Your task to perform on an android device: toggle location history Image 0: 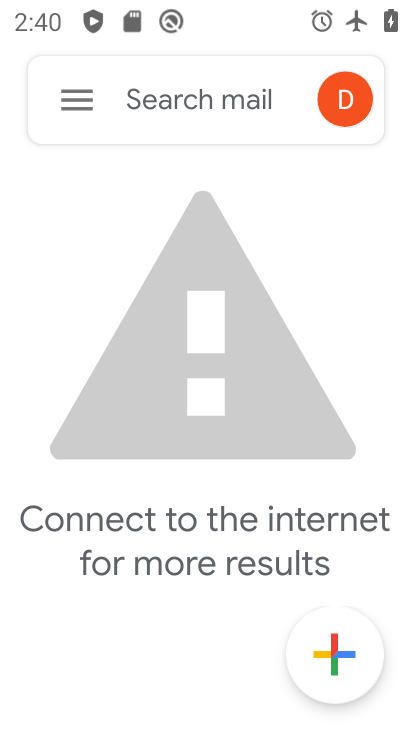
Step 0: press home button
Your task to perform on an android device: toggle location history Image 1: 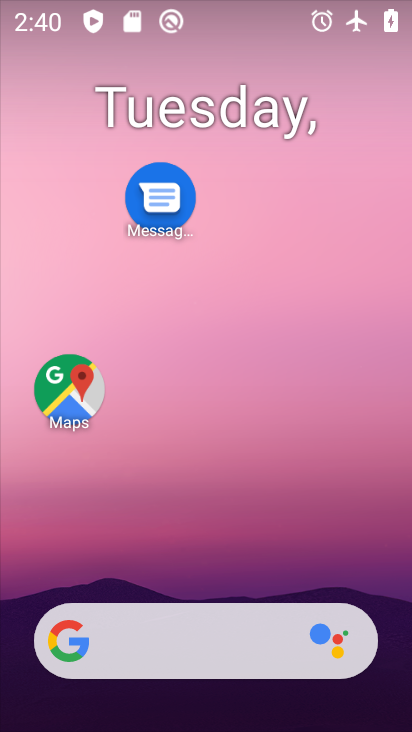
Step 1: drag from (224, 562) to (247, 141)
Your task to perform on an android device: toggle location history Image 2: 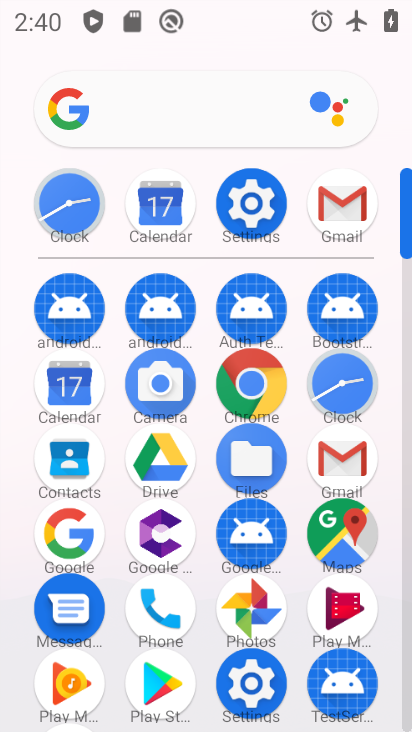
Step 2: click (259, 188)
Your task to perform on an android device: toggle location history Image 3: 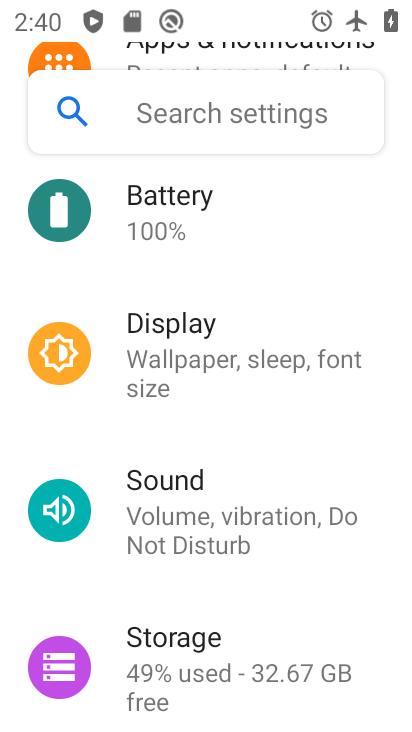
Step 3: drag from (242, 577) to (231, 236)
Your task to perform on an android device: toggle location history Image 4: 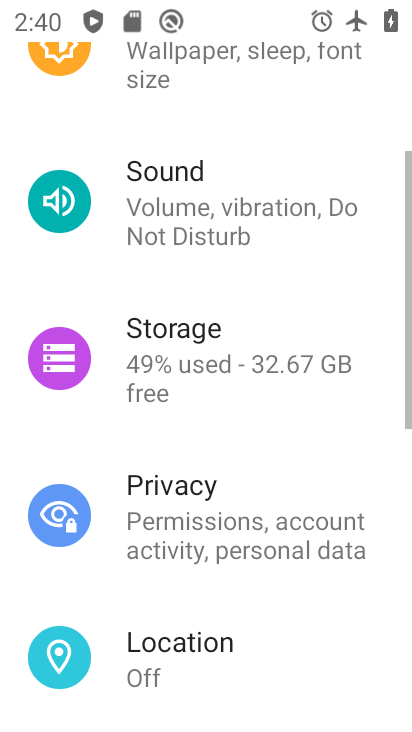
Step 4: click (136, 645)
Your task to perform on an android device: toggle location history Image 5: 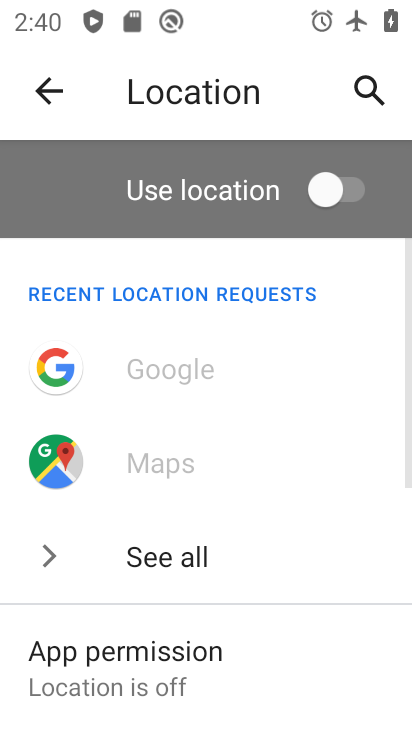
Step 5: drag from (255, 619) to (279, 256)
Your task to perform on an android device: toggle location history Image 6: 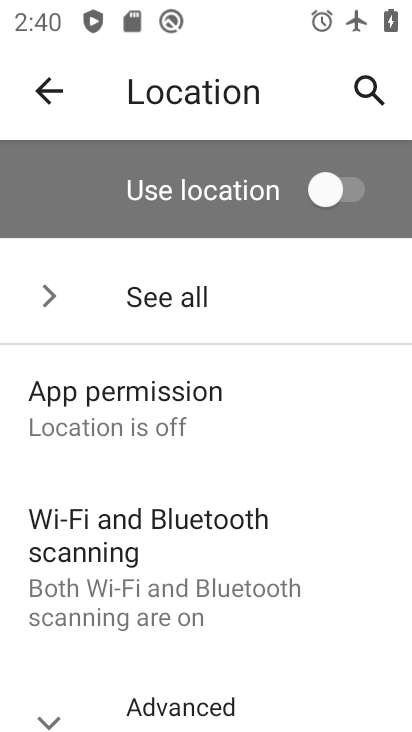
Step 6: drag from (237, 705) to (253, 420)
Your task to perform on an android device: toggle location history Image 7: 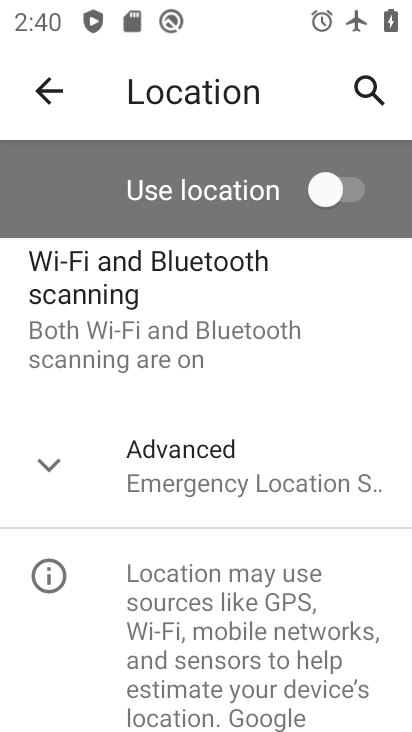
Step 7: click (206, 477)
Your task to perform on an android device: toggle location history Image 8: 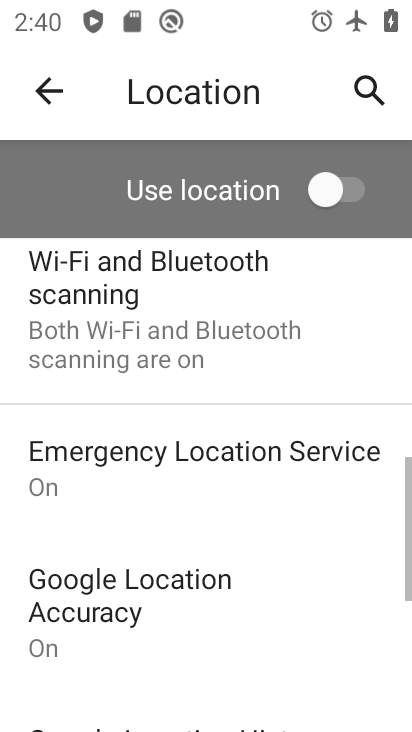
Step 8: drag from (229, 637) to (238, 426)
Your task to perform on an android device: toggle location history Image 9: 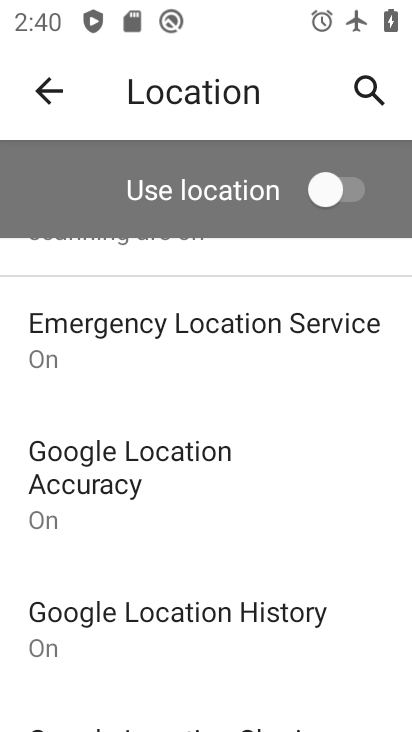
Step 9: click (227, 638)
Your task to perform on an android device: toggle location history Image 10: 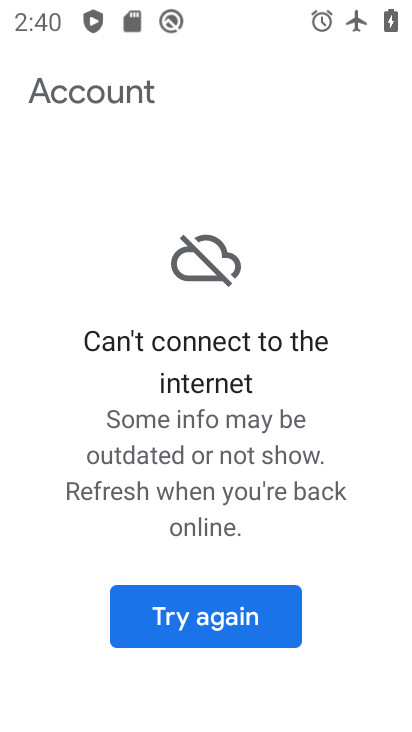
Step 10: task complete